Your task to perform on an android device: Go to sound settings Image 0: 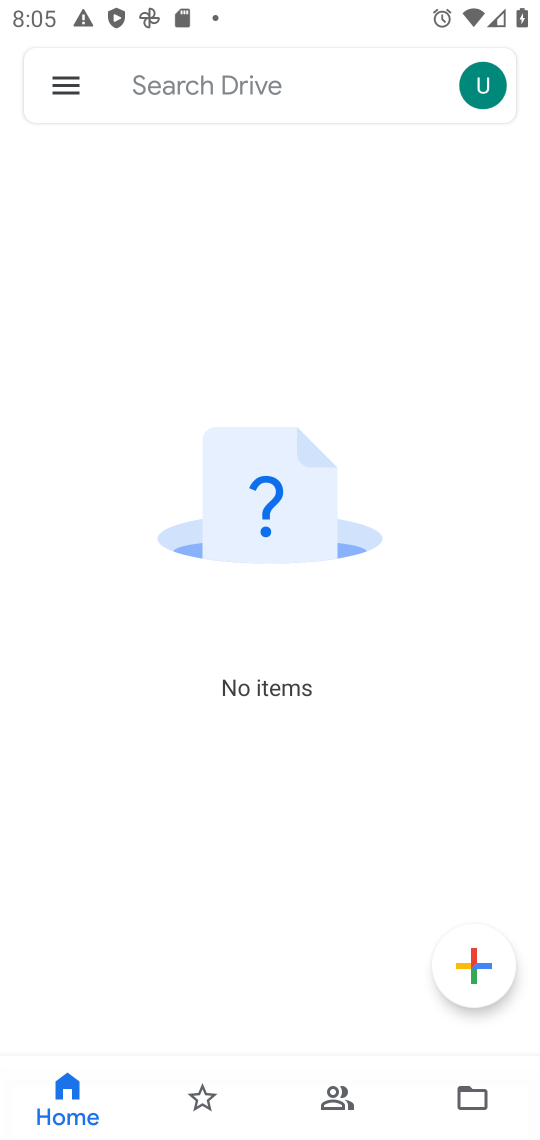
Step 0: press home button
Your task to perform on an android device: Go to sound settings Image 1: 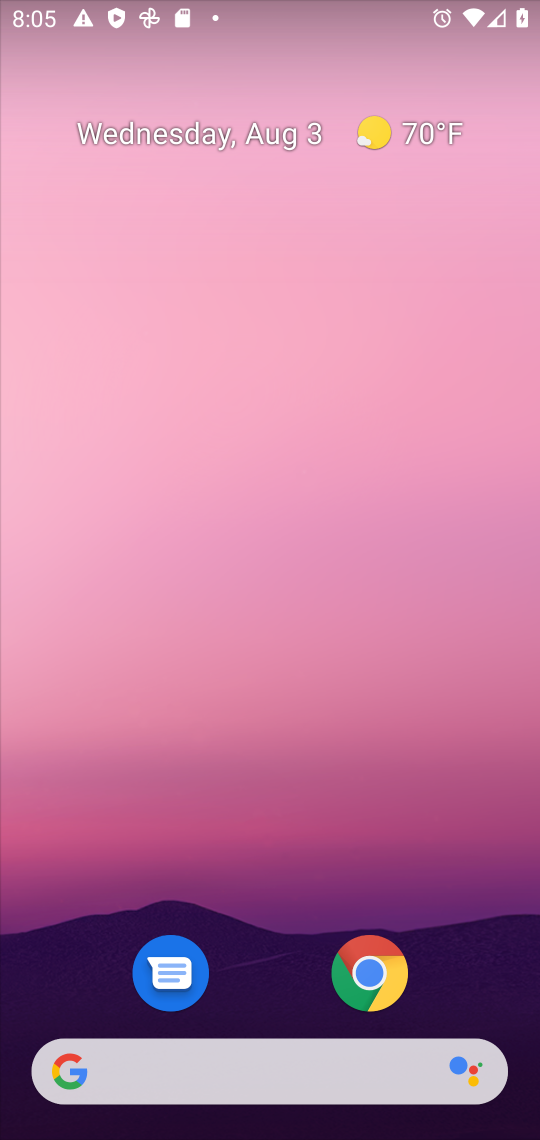
Step 1: drag from (154, 362) to (150, 230)
Your task to perform on an android device: Go to sound settings Image 2: 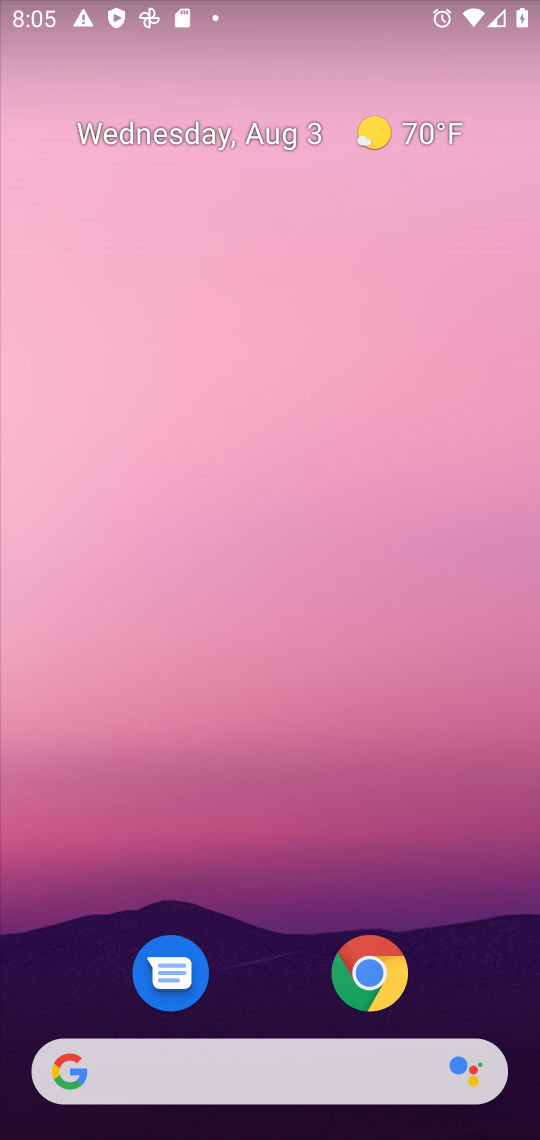
Step 2: drag from (243, 938) to (259, 161)
Your task to perform on an android device: Go to sound settings Image 3: 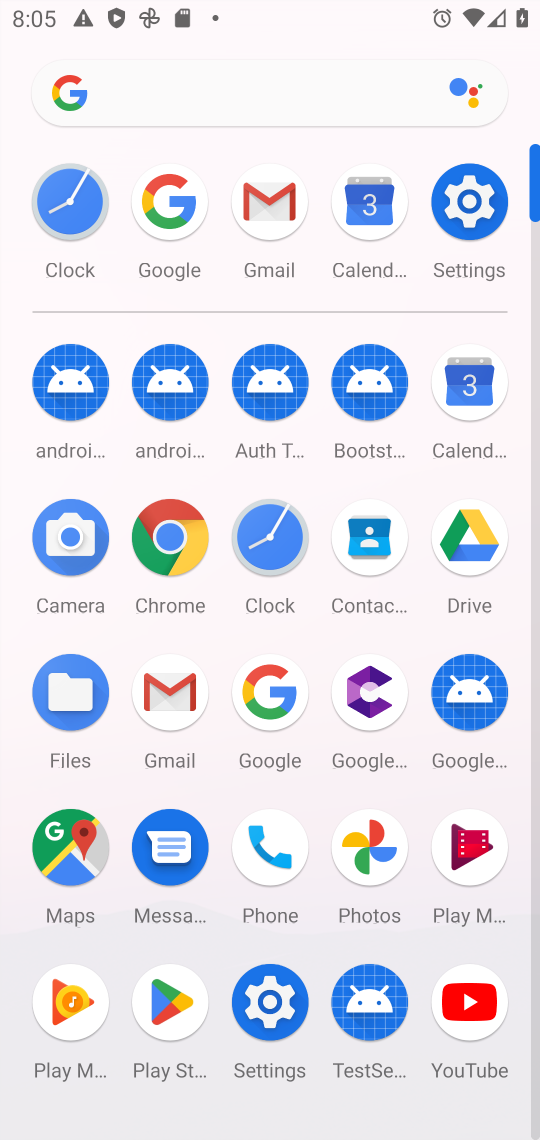
Step 3: click (469, 201)
Your task to perform on an android device: Go to sound settings Image 4: 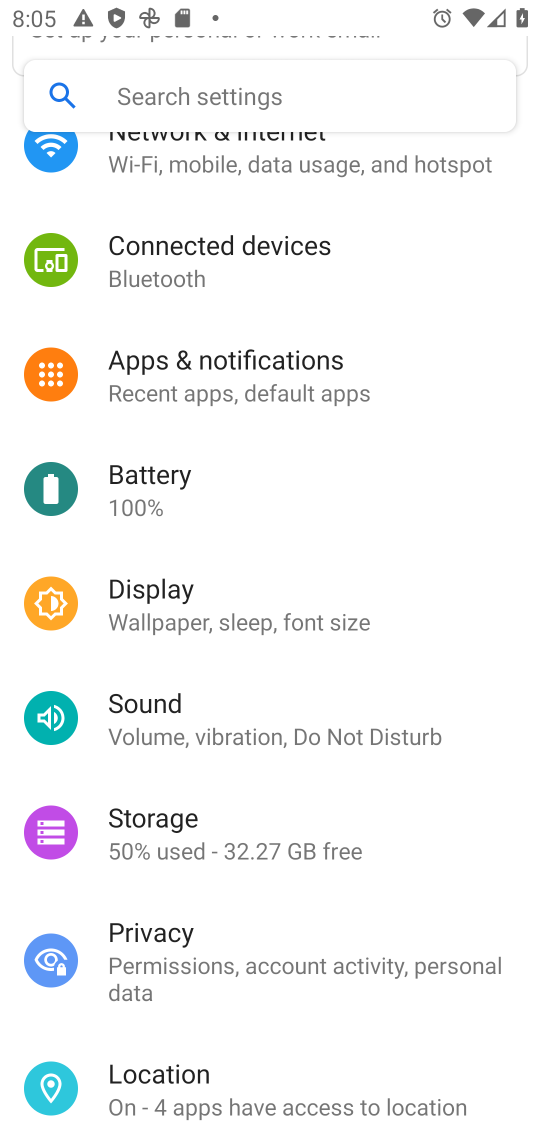
Step 4: click (134, 744)
Your task to perform on an android device: Go to sound settings Image 5: 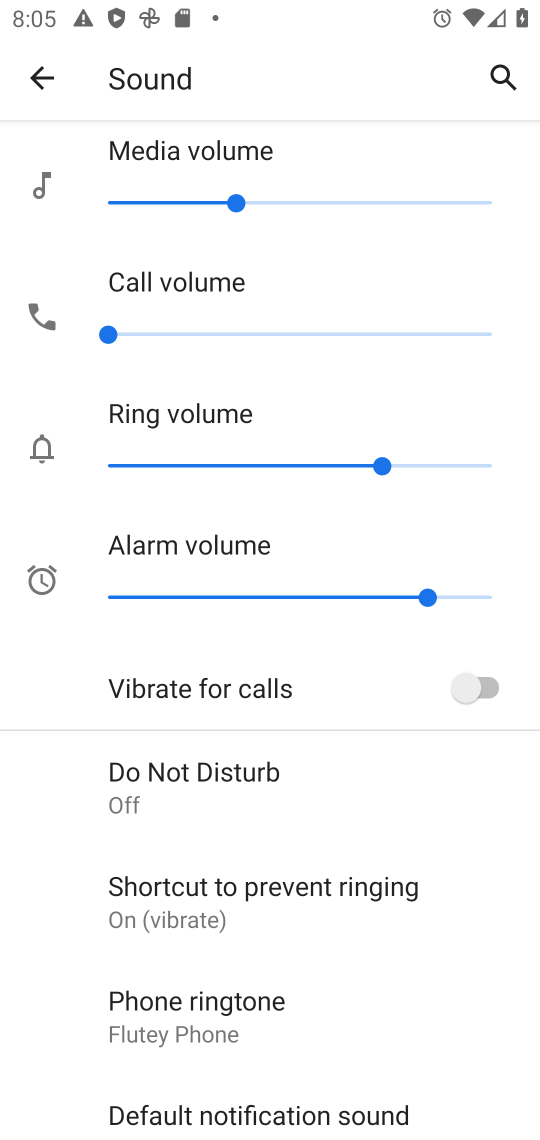
Step 5: task complete